Your task to perform on an android device: Do I have any events tomorrow? Image 0: 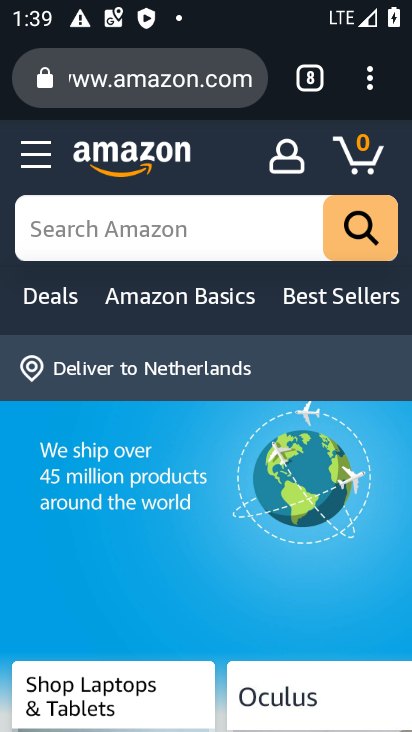
Step 0: press home button
Your task to perform on an android device: Do I have any events tomorrow? Image 1: 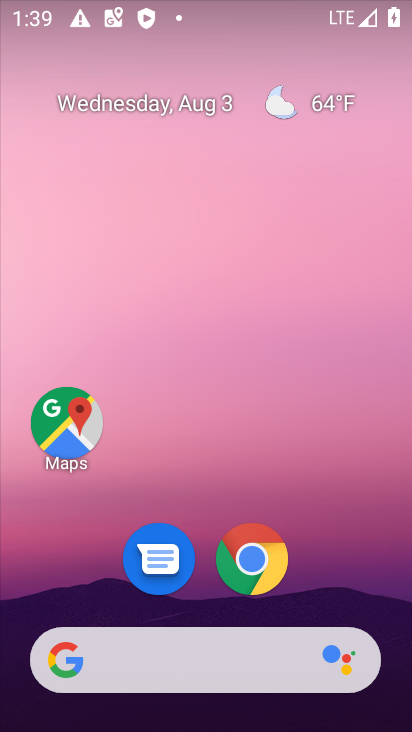
Step 1: drag from (197, 604) to (221, 46)
Your task to perform on an android device: Do I have any events tomorrow? Image 2: 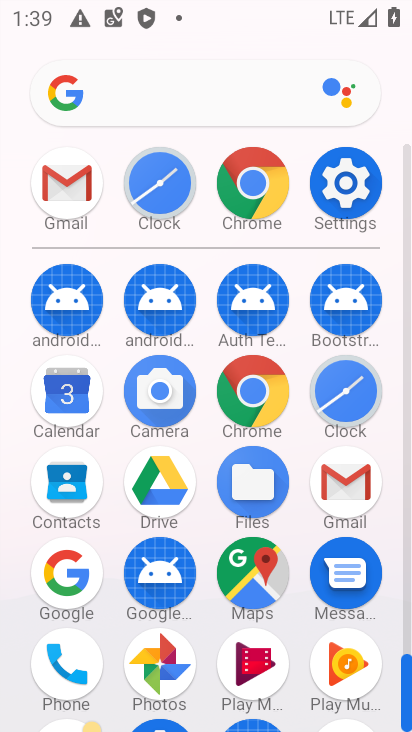
Step 2: click (63, 401)
Your task to perform on an android device: Do I have any events tomorrow? Image 3: 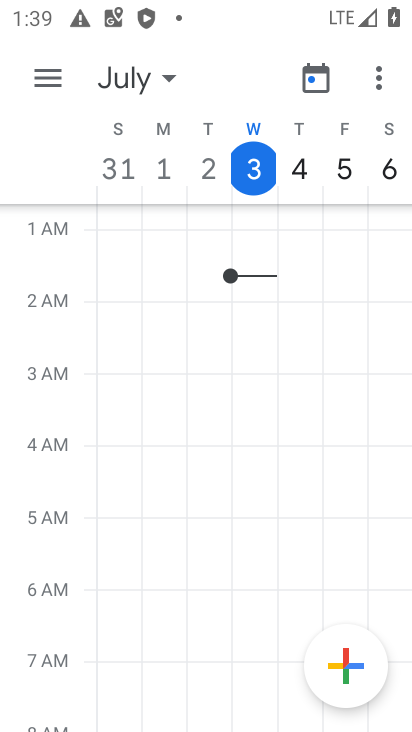
Step 3: click (302, 168)
Your task to perform on an android device: Do I have any events tomorrow? Image 4: 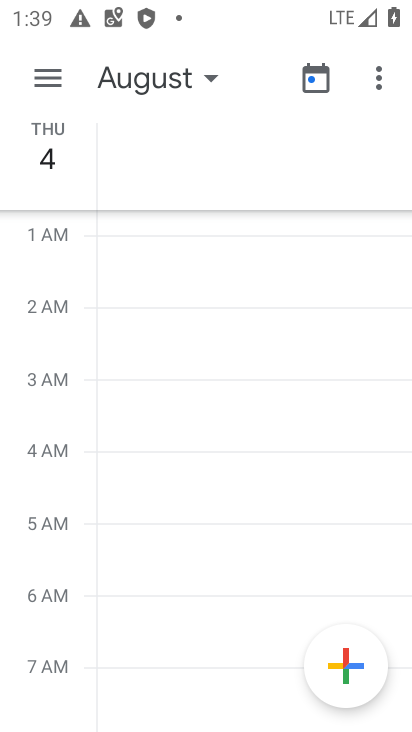
Step 4: click (204, 74)
Your task to perform on an android device: Do I have any events tomorrow? Image 5: 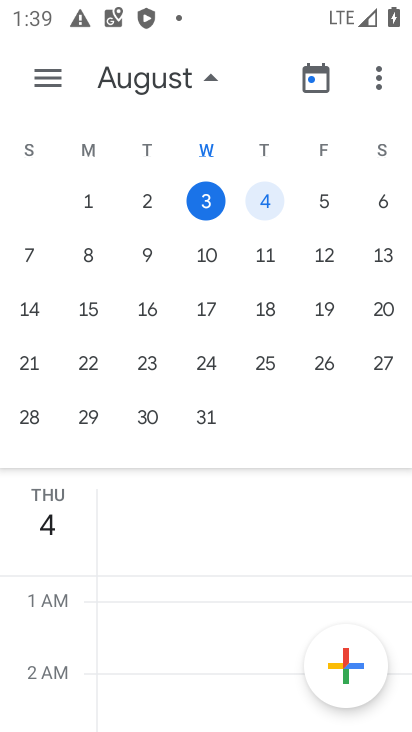
Step 5: click (262, 194)
Your task to perform on an android device: Do I have any events tomorrow? Image 6: 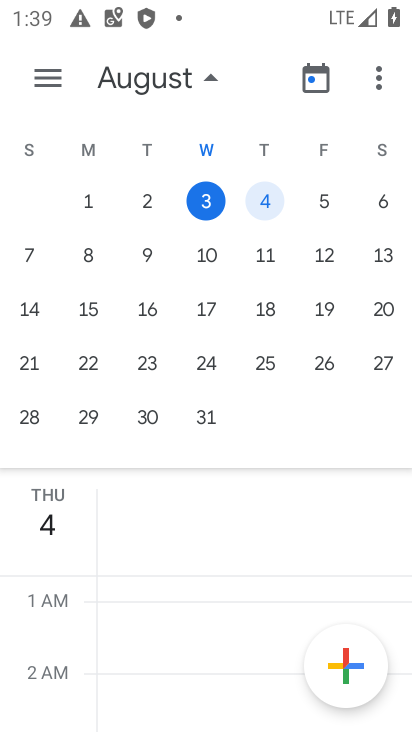
Step 6: task complete